Your task to perform on an android device: uninstall "Facebook Messenger" Image 0: 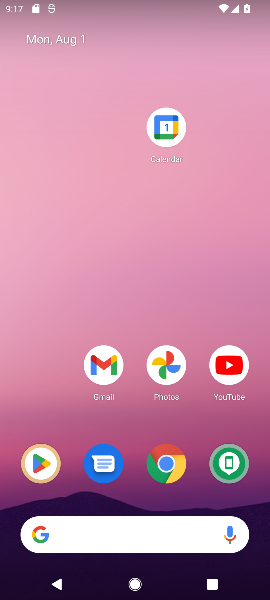
Step 0: drag from (42, 318) to (43, 0)
Your task to perform on an android device: uninstall "Facebook Messenger" Image 1: 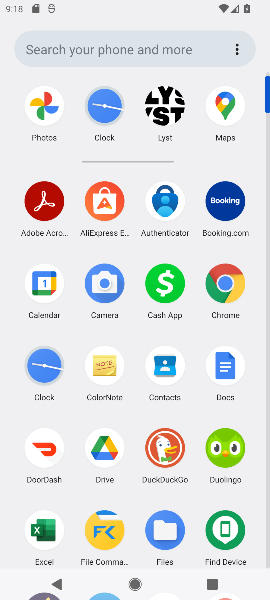
Step 1: task complete